Your task to perform on an android device: see tabs open on other devices in the chrome app Image 0: 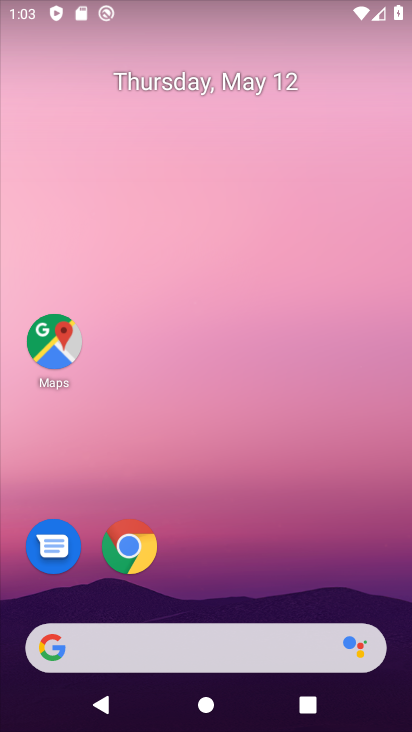
Step 0: drag from (175, 643) to (325, 222)
Your task to perform on an android device: see tabs open on other devices in the chrome app Image 1: 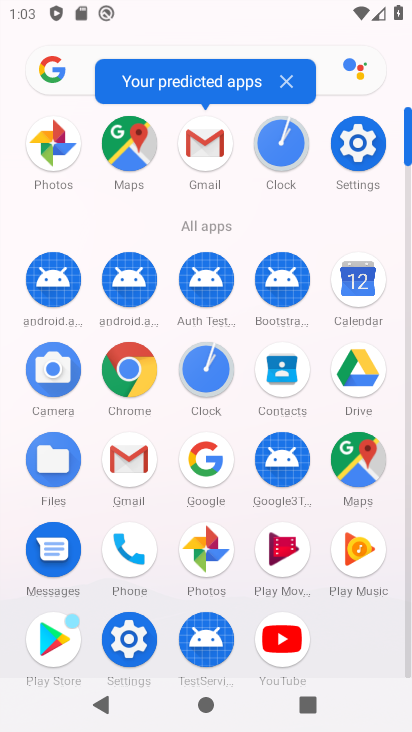
Step 1: click (133, 380)
Your task to perform on an android device: see tabs open on other devices in the chrome app Image 2: 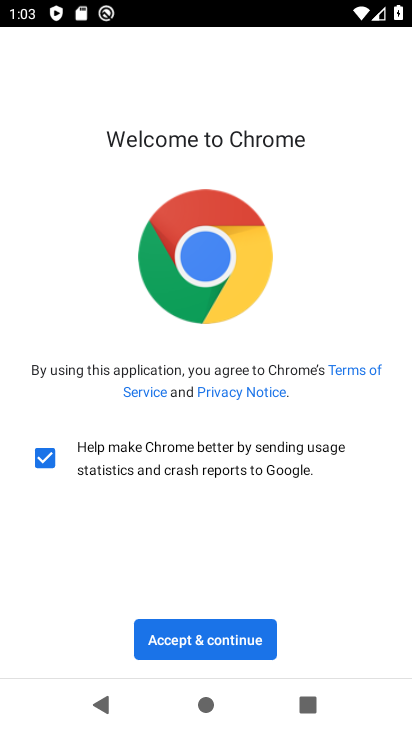
Step 2: click (223, 635)
Your task to perform on an android device: see tabs open on other devices in the chrome app Image 3: 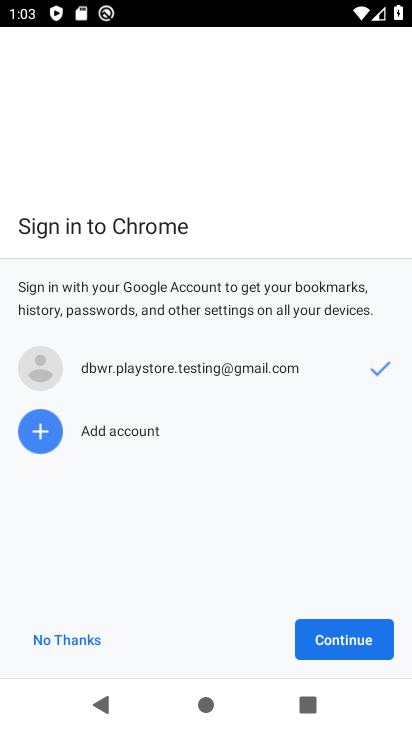
Step 3: click (335, 638)
Your task to perform on an android device: see tabs open on other devices in the chrome app Image 4: 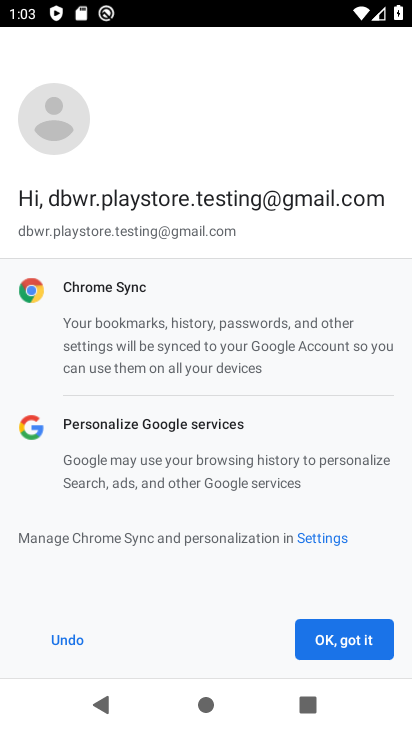
Step 4: click (344, 631)
Your task to perform on an android device: see tabs open on other devices in the chrome app Image 5: 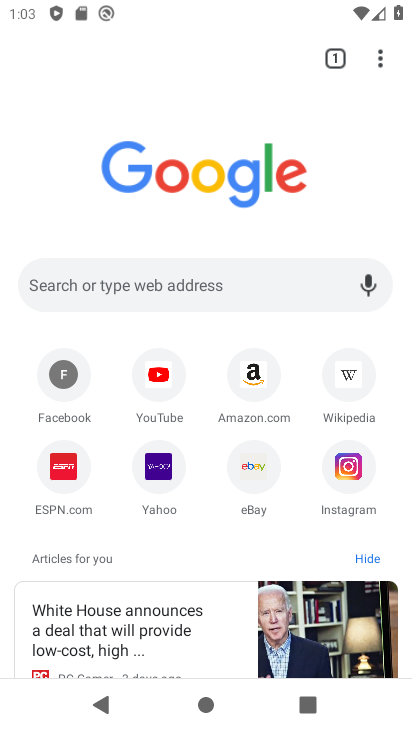
Step 5: task complete